Your task to perform on an android device: snooze an email in the gmail app Image 0: 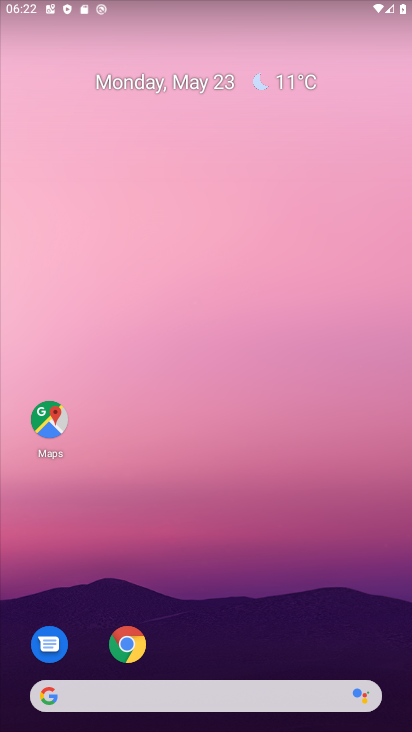
Step 0: drag from (235, 655) to (216, 169)
Your task to perform on an android device: snooze an email in the gmail app Image 1: 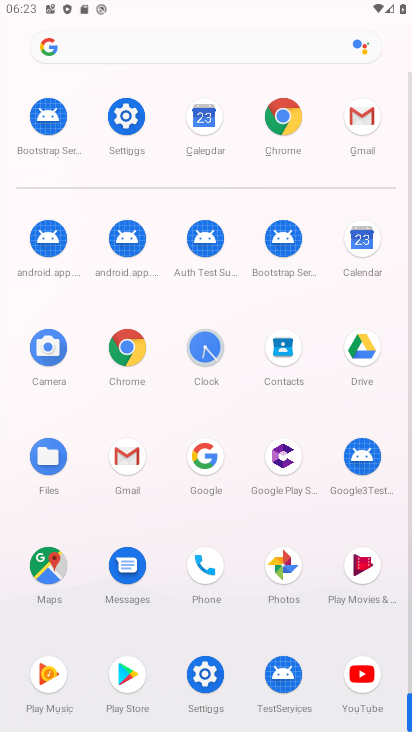
Step 1: click (354, 120)
Your task to perform on an android device: snooze an email in the gmail app Image 2: 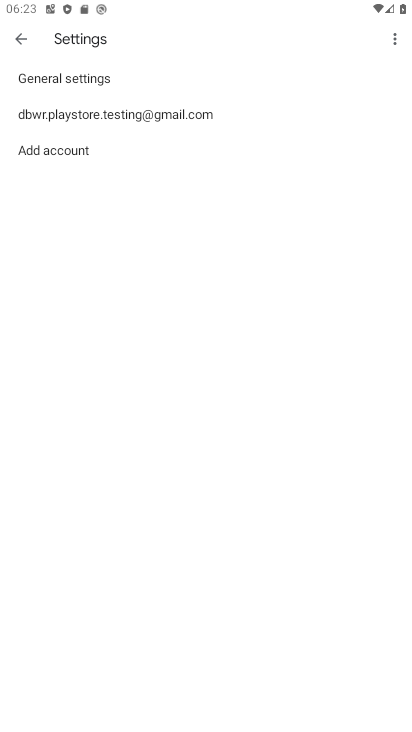
Step 2: click (130, 116)
Your task to perform on an android device: snooze an email in the gmail app Image 3: 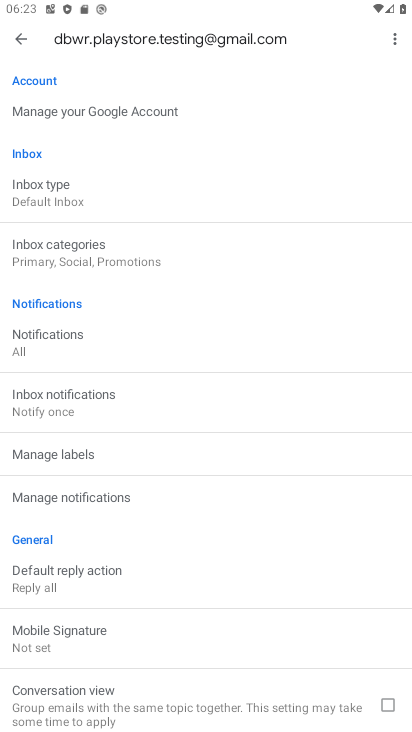
Step 3: drag from (160, 650) to (174, 392)
Your task to perform on an android device: snooze an email in the gmail app Image 4: 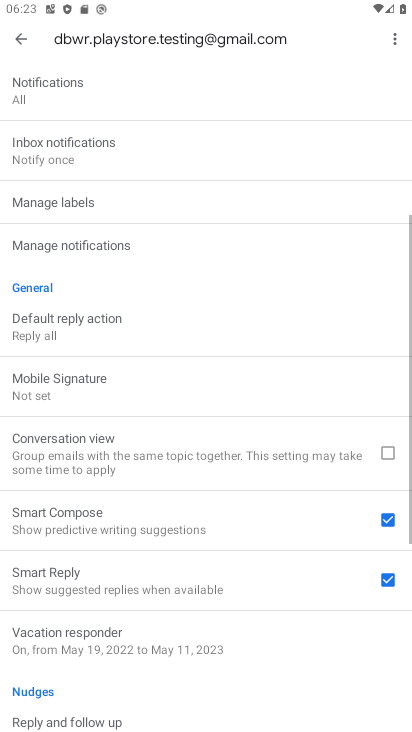
Step 4: click (26, 37)
Your task to perform on an android device: snooze an email in the gmail app Image 5: 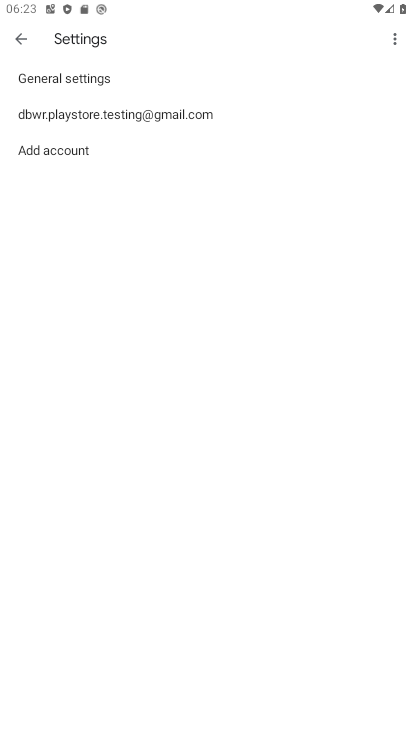
Step 5: click (23, 40)
Your task to perform on an android device: snooze an email in the gmail app Image 6: 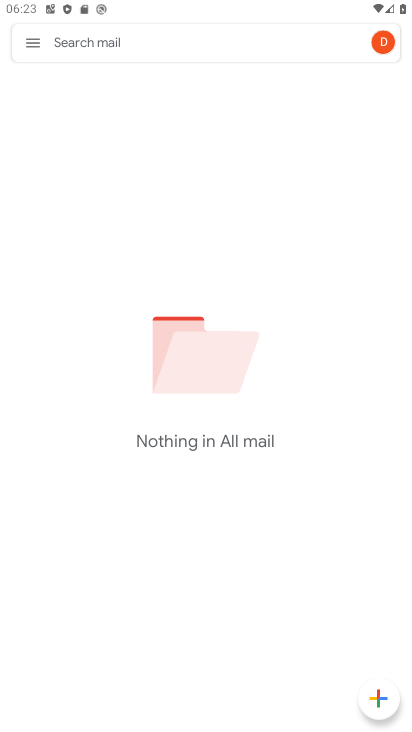
Step 6: click (26, 47)
Your task to perform on an android device: snooze an email in the gmail app Image 7: 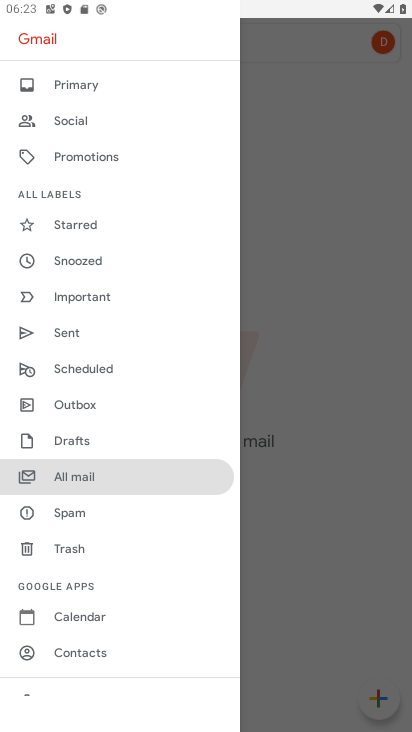
Step 7: click (93, 488)
Your task to perform on an android device: snooze an email in the gmail app Image 8: 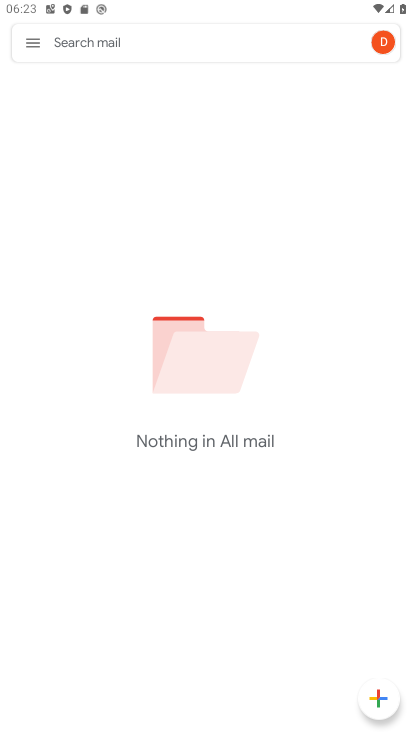
Step 8: task complete